Your task to perform on an android device: Go to location settings Image 0: 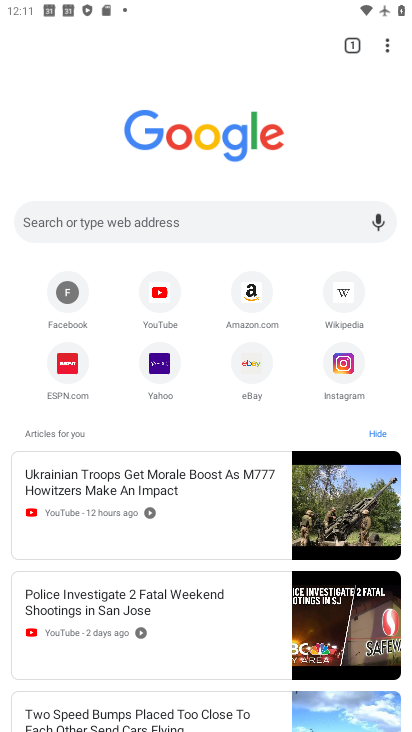
Step 0: press home button
Your task to perform on an android device: Go to location settings Image 1: 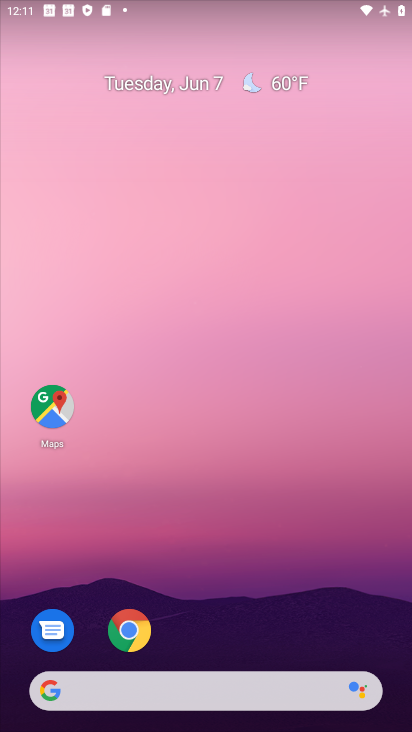
Step 1: drag from (398, 644) to (263, 62)
Your task to perform on an android device: Go to location settings Image 2: 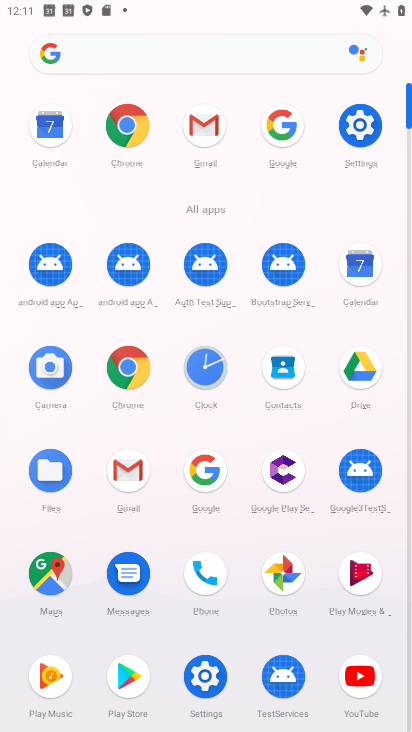
Step 2: click (355, 122)
Your task to perform on an android device: Go to location settings Image 3: 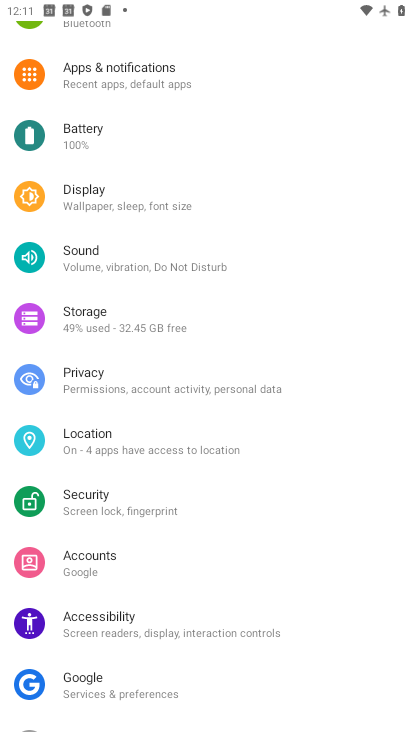
Step 3: click (122, 438)
Your task to perform on an android device: Go to location settings Image 4: 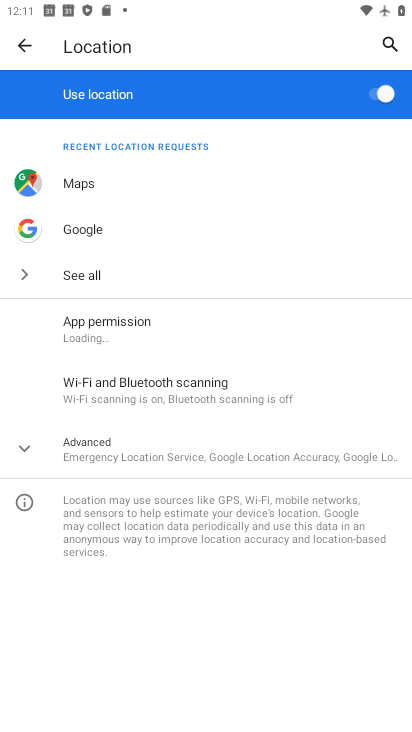
Step 4: task complete